Your task to perform on an android device: open device folders in google photos Image 0: 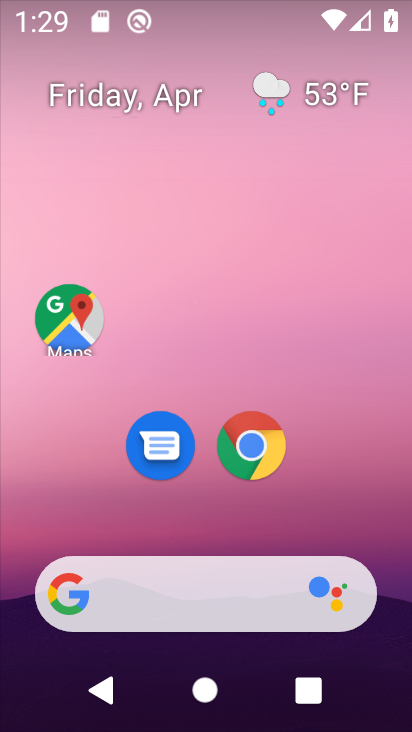
Step 0: drag from (375, 512) to (358, 109)
Your task to perform on an android device: open device folders in google photos Image 1: 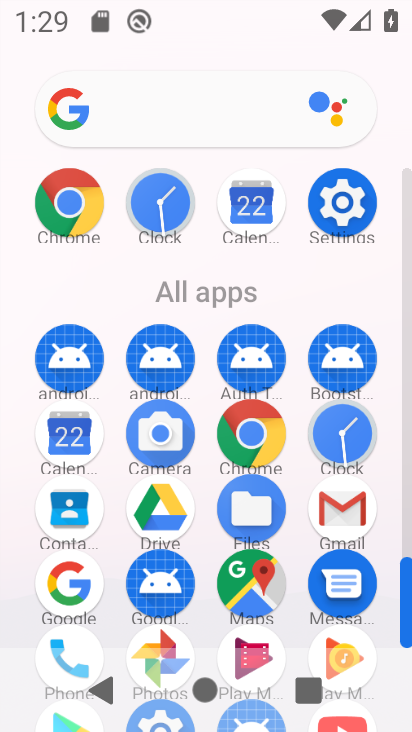
Step 1: drag from (388, 527) to (392, 241)
Your task to perform on an android device: open device folders in google photos Image 2: 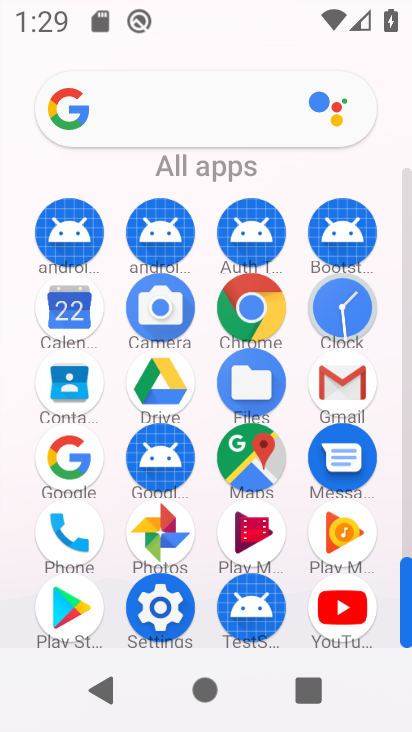
Step 2: click (152, 525)
Your task to perform on an android device: open device folders in google photos Image 3: 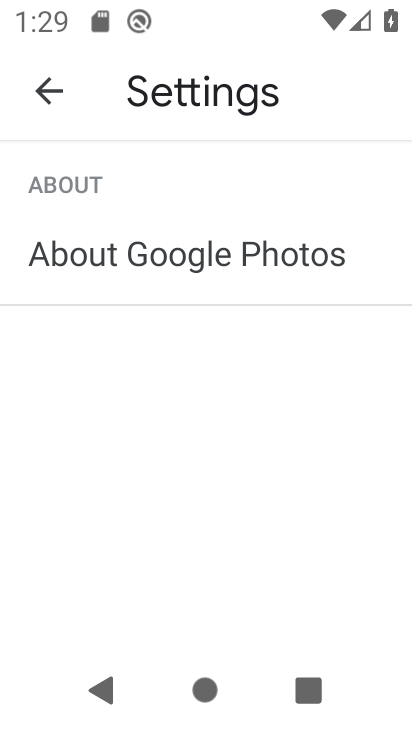
Step 3: click (54, 95)
Your task to perform on an android device: open device folders in google photos Image 4: 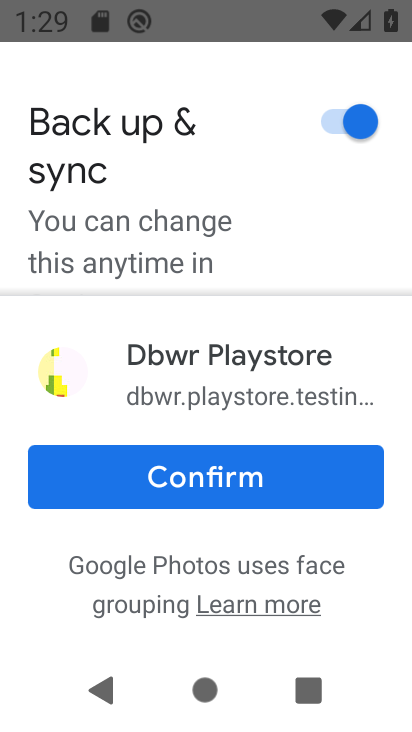
Step 4: click (279, 467)
Your task to perform on an android device: open device folders in google photos Image 5: 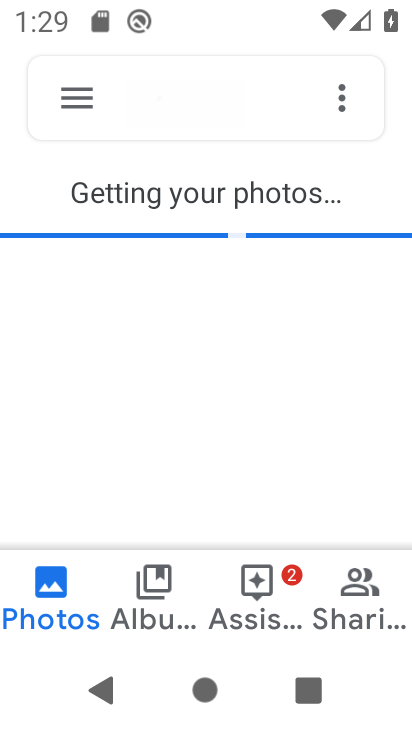
Step 5: click (82, 98)
Your task to perform on an android device: open device folders in google photos Image 6: 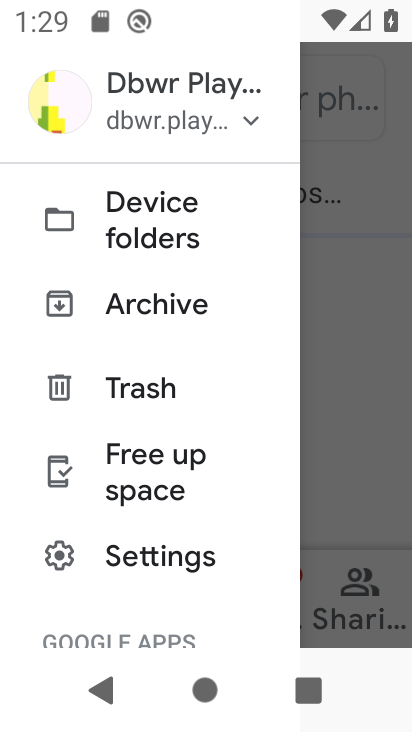
Step 6: click (169, 223)
Your task to perform on an android device: open device folders in google photos Image 7: 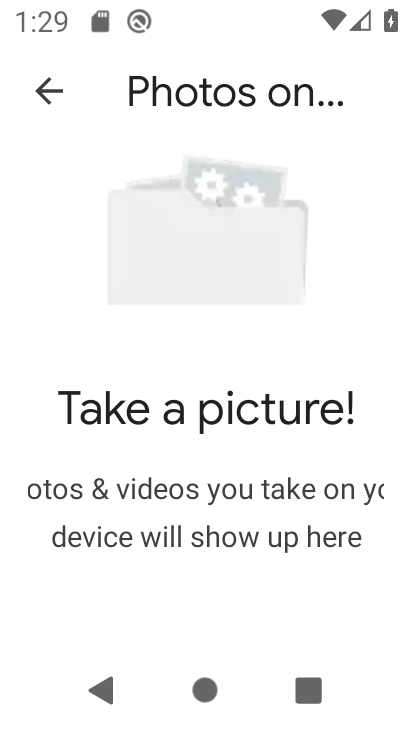
Step 7: task complete